Your task to perform on an android device: turn off smart reply in the gmail app Image 0: 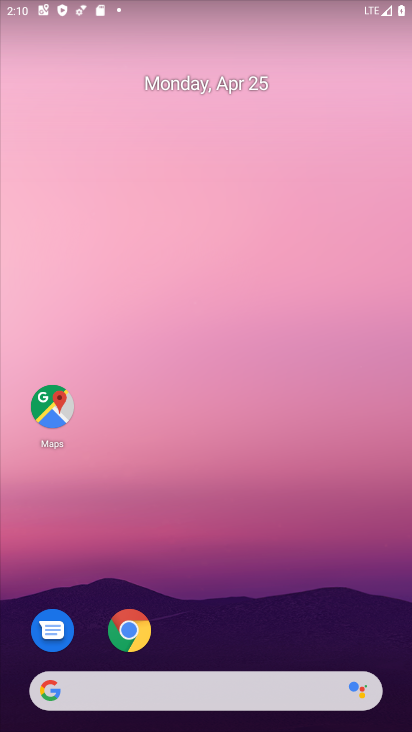
Step 0: drag from (346, 627) to (379, 84)
Your task to perform on an android device: turn off smart reply in the gmail app Image 1: 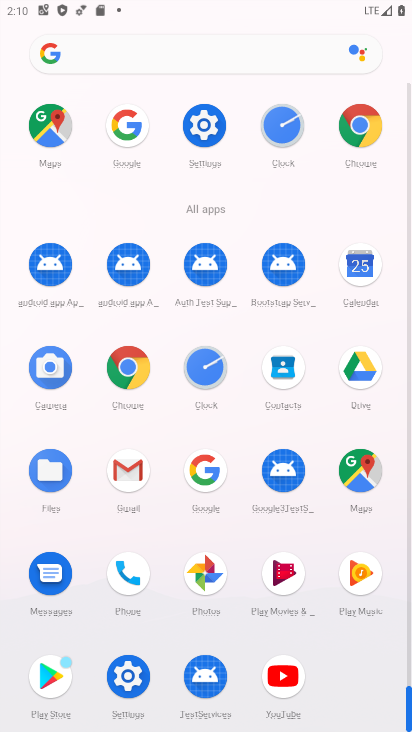
Step 1: click (128, 471)
Your task to perform on an android device: turn off smart reply in the gmail app Image 2: 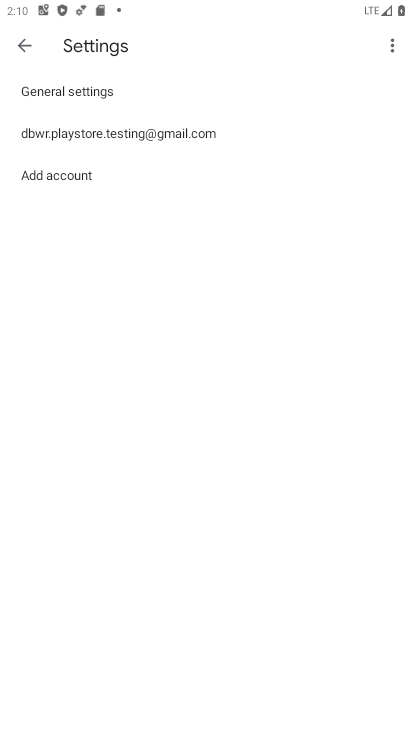
Step 2: click (168, 130)
Your task to perform on an android device: turn off smart reply in the gmail app Image 3: 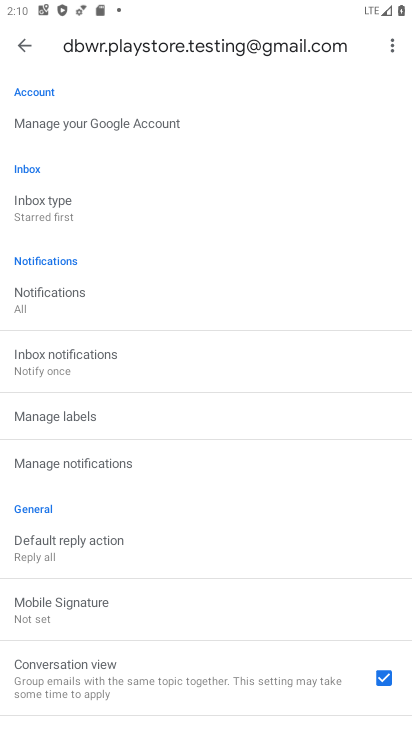
Step 3: task complete